Your task to perform on an android device: turn pop-ups off in chrome Image 0: 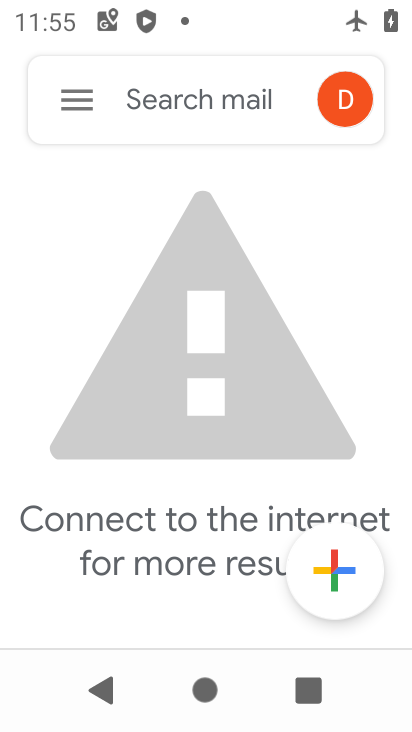
Step 0: press home button
Your task to perform on an android device: turn pop-ups off in chrome Image 1: 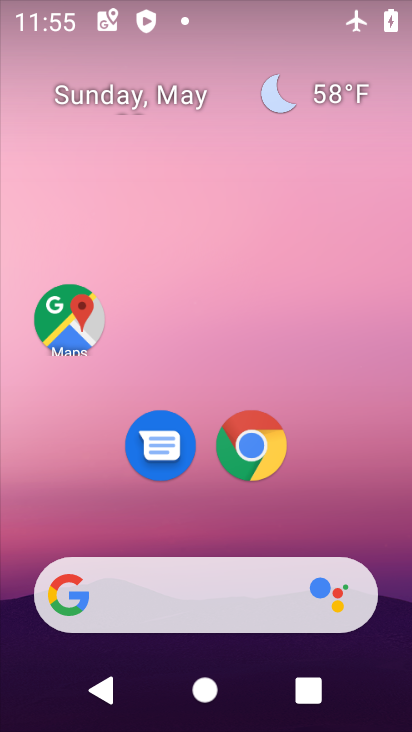
Step 1: click (246, 446)
Your task to perform on an android device: turn pop-ups off in chrome Image 2: 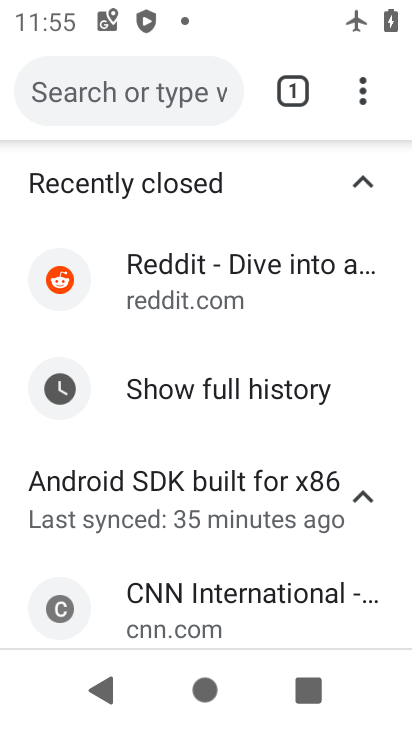
Step 2: click (367, 85)
Your task to perform on an android device: turn pop-ups off in chrome Image 3: 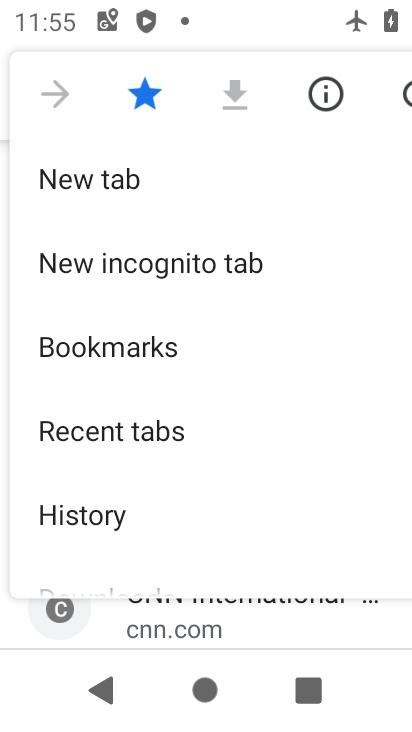
Step 3: drag from (223, 526) to (223, 142)
Your task to perform on an android device: turn pop-ups off in chrome Image 4: 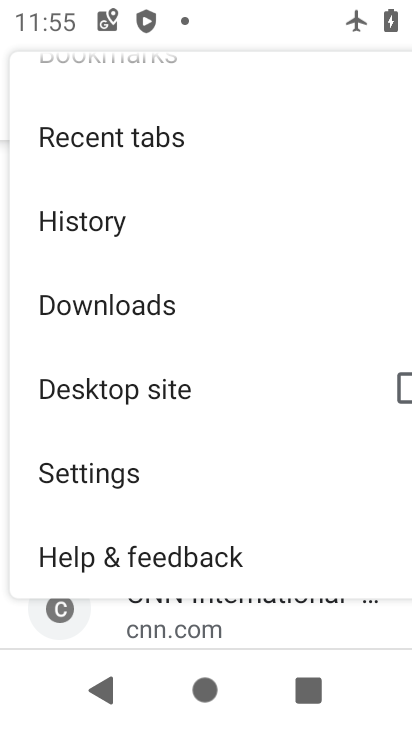
Step 4: click (148, 467)
Your task to perform on an android device: turn pop-ups off in chrome Image 5: 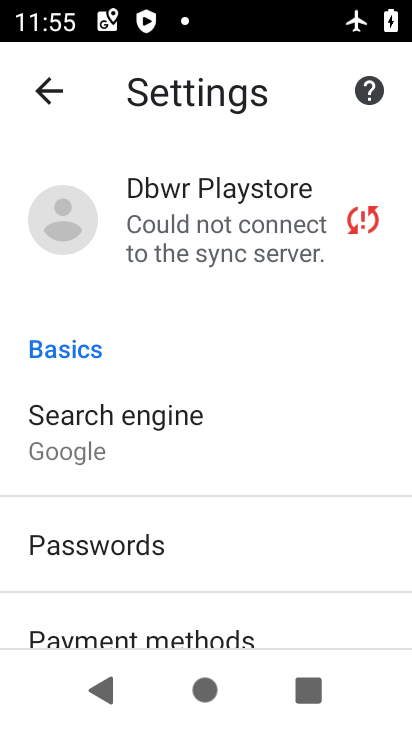
Step 5: drag from (247, 616) to (256, 231)
Your task to perform on an android device: turn pop-ups off in chrome Image 6: 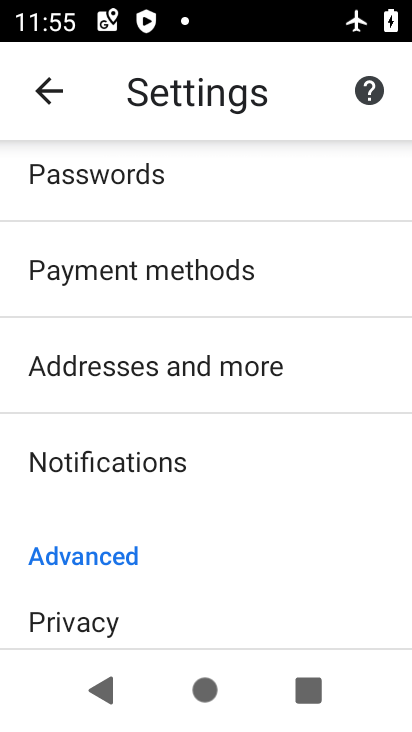
Step 6: drag from (210, 603) to (228, 251)
Your task to perform on an android device: turn pop-ups off in chrome Image 7: 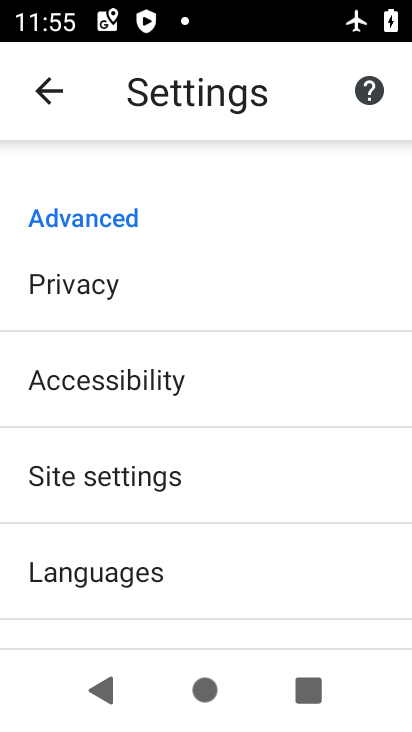
Step 7: drag from (210, 585) to (215, 218)
Your task to perform on an android device: turn pop-ups off in chrome Image 8: 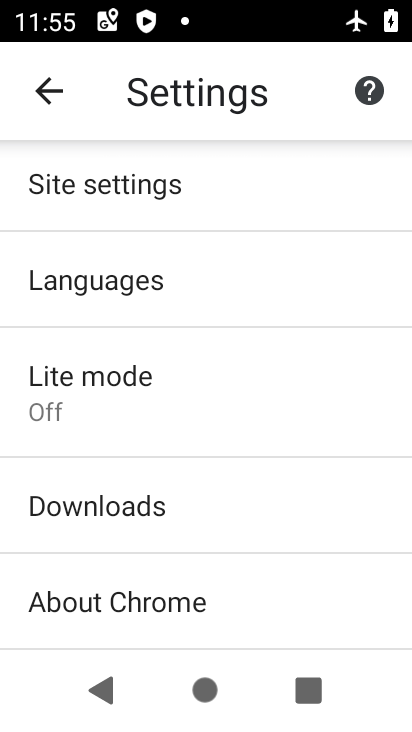
Step 8: click (196, 184)
Your task to perform on an android device: turn pop-ups off in chrome Image 9: 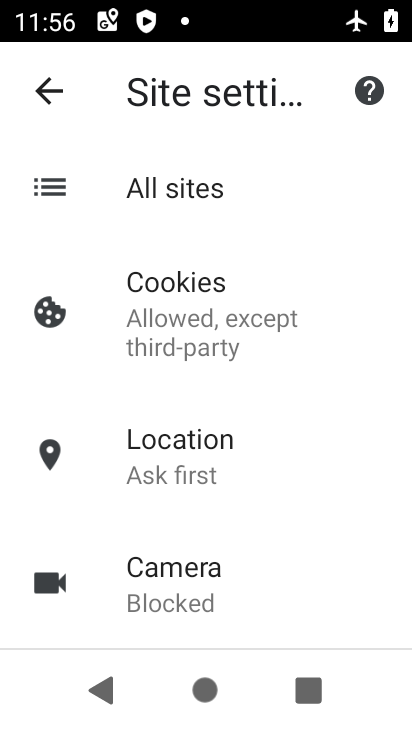
Step 9: drag from (223, 598) to (224, 222)
Your task to perform on an android device: turn pop-ups off in chrome Image 10: 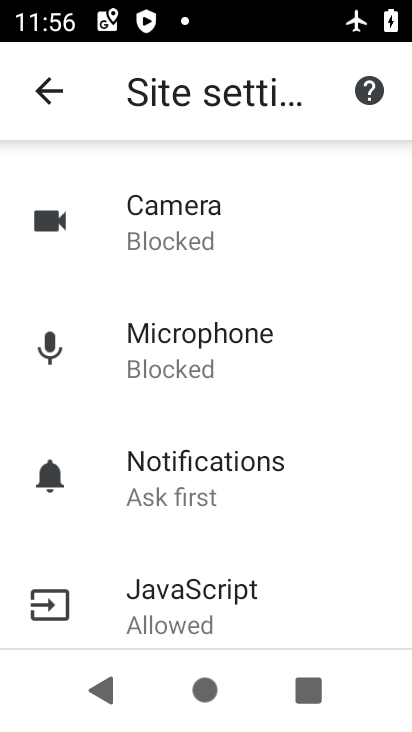
Step 10: drag from (114, 584) to (120, 161)
Your task to perform on an android device: turn pop-ups off in chrome Image 11: 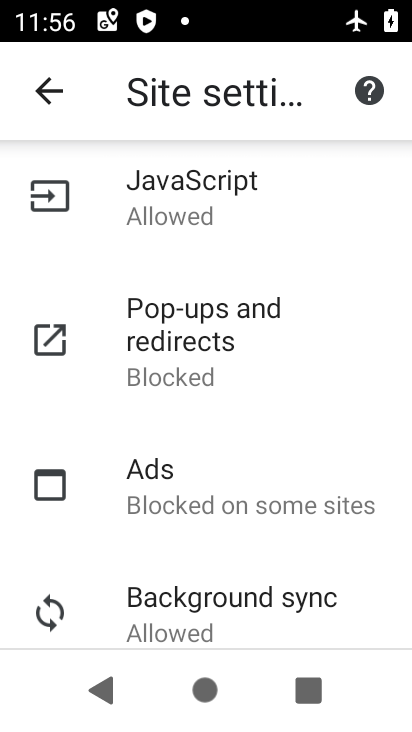
Step 11: click (106, 330)
Your task to perform on an android device: turn pop-ups off in chrome Image 12: 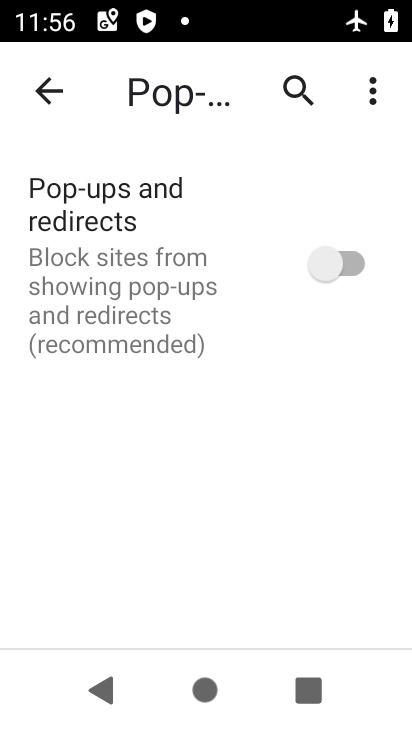
Step 12: task complete